Your task to perform on an android device: Go to Reddit.com Image 0: 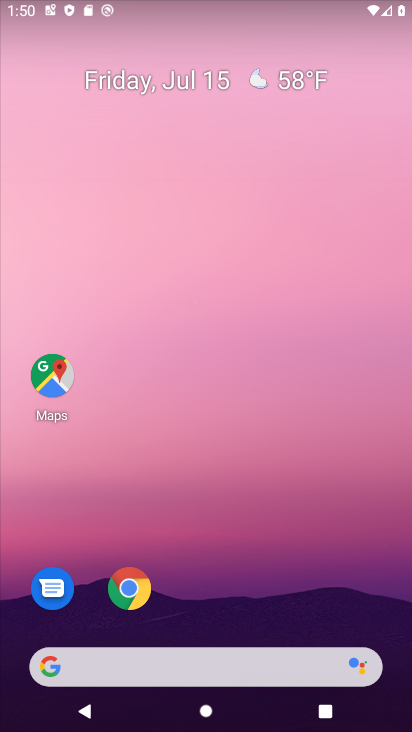
Step 0: click (124, 594)
Your task to perform on an android device: Go to Reddit.com Image 1: 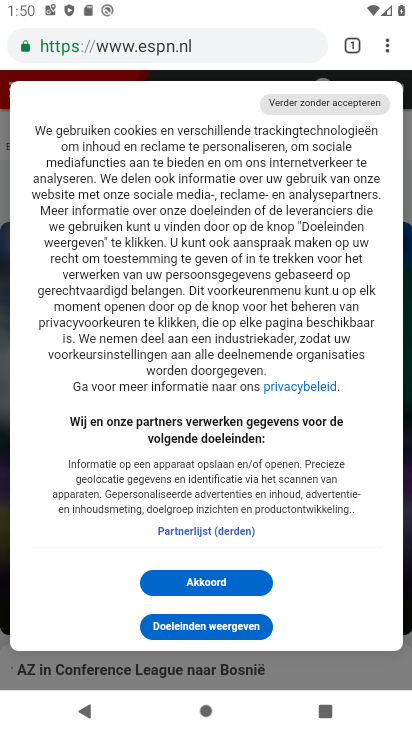
Step 1: click (215, 42)
Your task to perform on an android device: Go to Reddit.com Image 2: 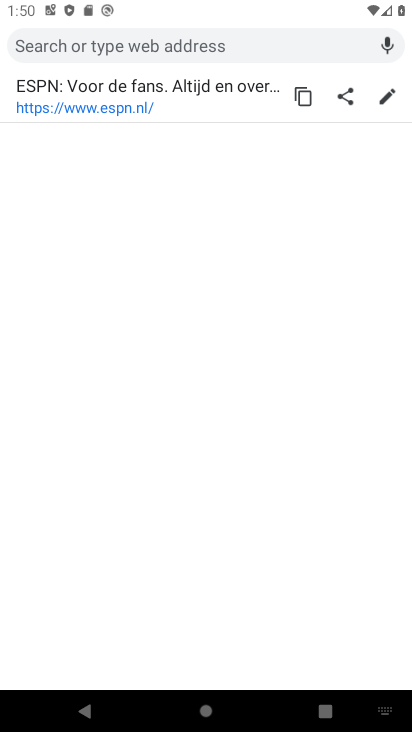
Step 2: type "Reddit.com"
Your task to perform on an android device: Go to Reddit.com Image 3: 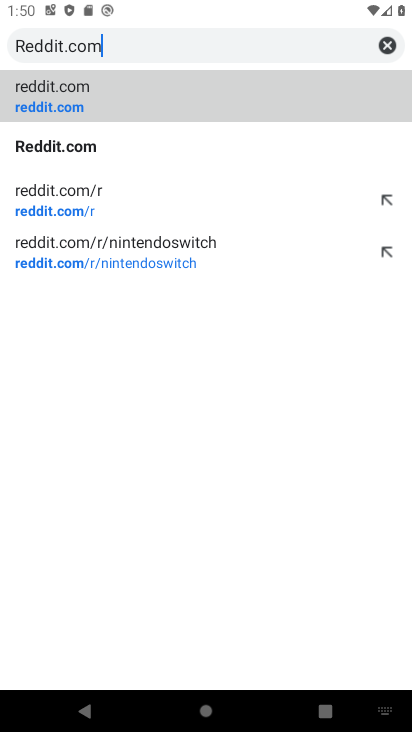
Step 3: click (318, 95)
Your task to perform on an android device: Go to Reddit.com Image 4: 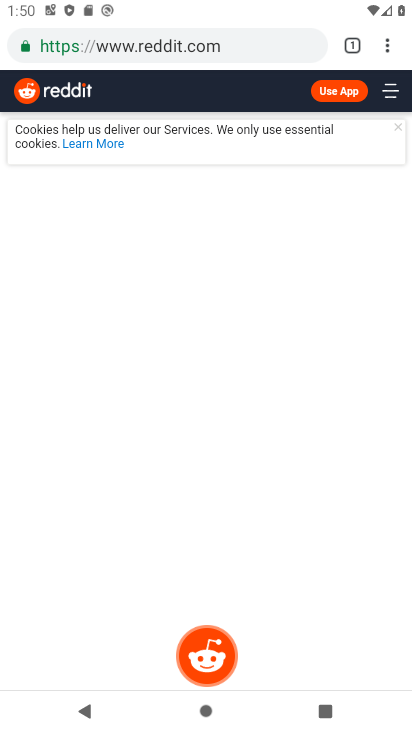
Step 4: task complete